Your task to perform on an android device: Open calendar and show me the first week of next month Image 0: 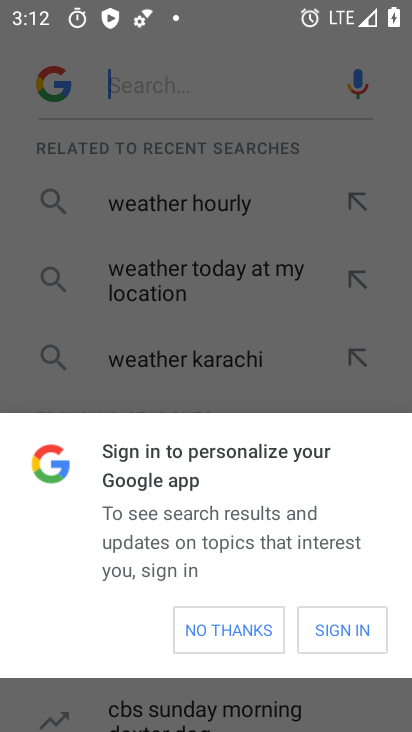
Step 0: press home button
Your task to perform on an android device: Open calendar and show me the first week of next month Image 1: 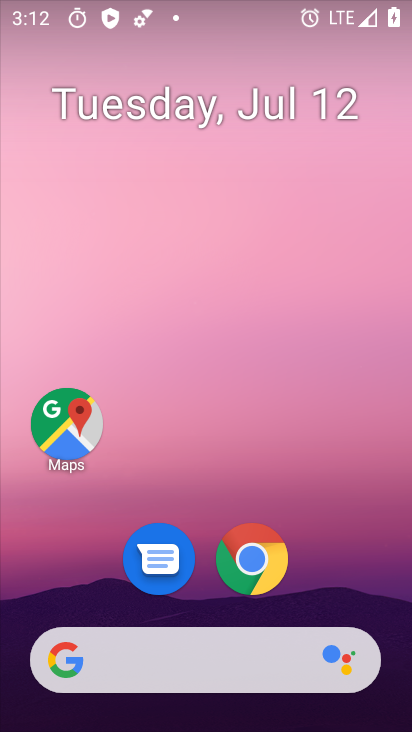
Step 1: drag from (389, 584) to (379, 122)
Your task to perform on an android device: Open calendar and show me the first week of next month Image 2: 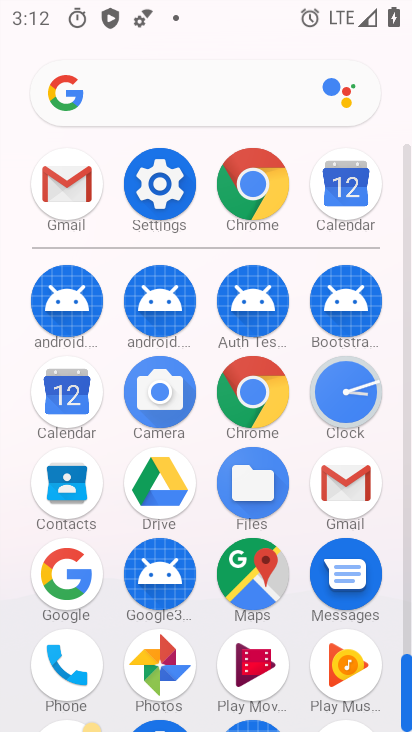
Step 2: click (82, 410)
Your task to perform on an android device: Open calendar and show me the first week of next month Image 3: 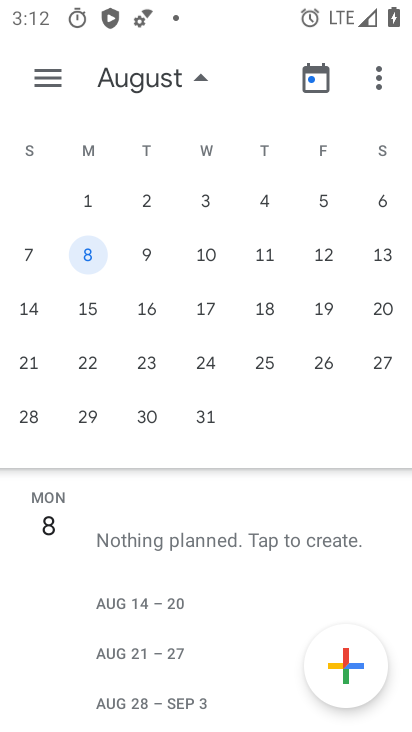
Step 3: click (84, 193)
Your task to perform on an android device: Open calendar and show me the first week of next month Image 4: 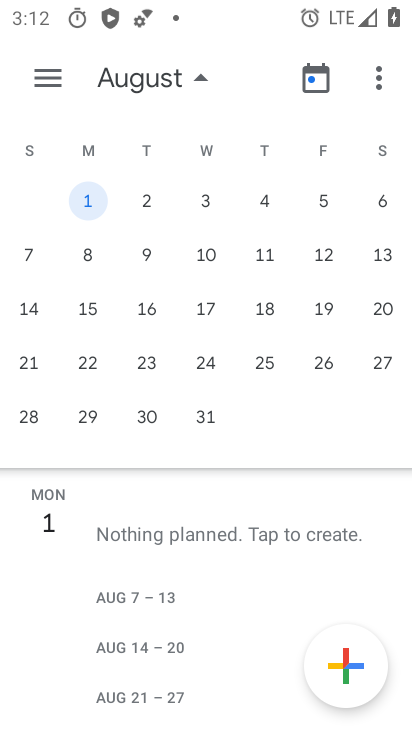
Step 4: task complete